Your task to perform on an android device: Open Google Chrome and click the shortcut for Amazon.com Image 0: 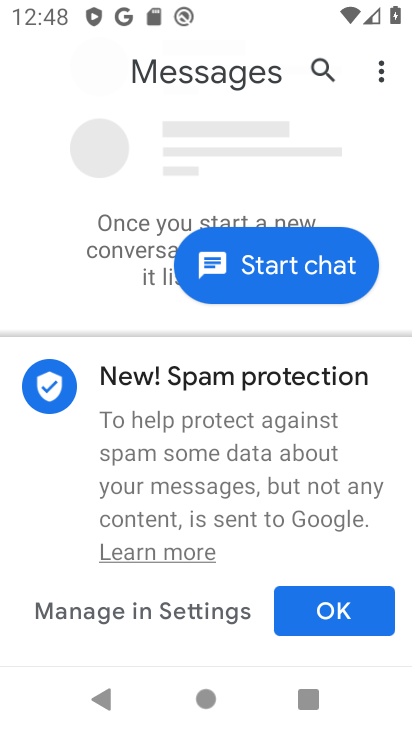
Step 0: press home button
Your task to perform on an android device: Open Google Chrome and click the shortcut for Amazon.com Image 1: 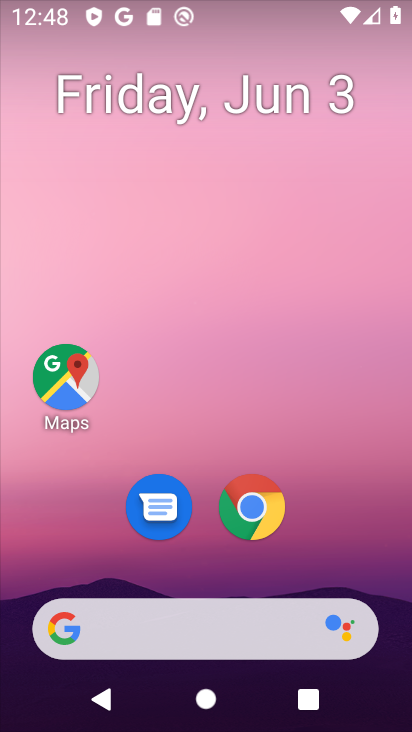
Step 1: drag from (360, 553) to (320, 188)
Your task to perform on an android device: Open Google Chrome and click the shortcut for Amazon.com Image 2: 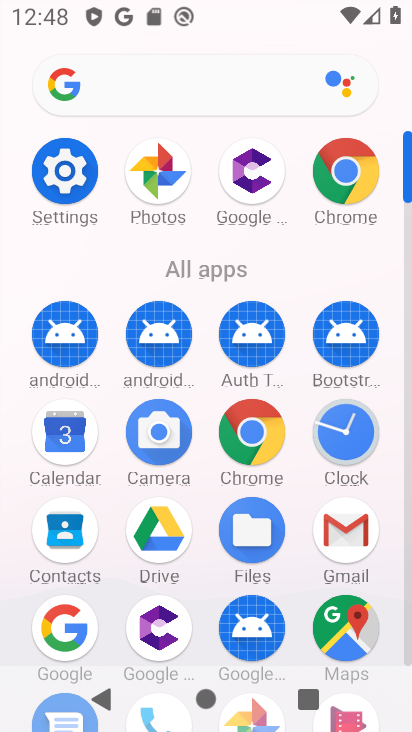
Step 2: click (242, 437)
Your task to perform on an android device: Open Google Chrome and click the shortcut for Amazon.com Image 3: 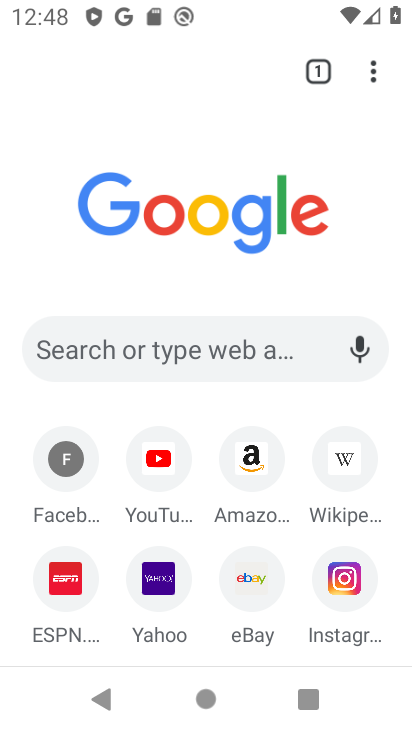
Step 3: click (232, 465)
Your task to perform on an android device: Open Google Chrome and click the shortcut for Amazon.com Image 4: 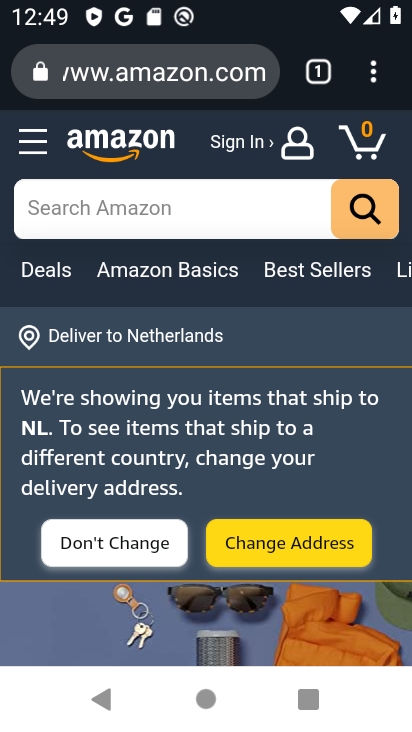
Step 4: task complete